Your task to perform on an android device: Open calendar and show me the second week of next month Image 0: 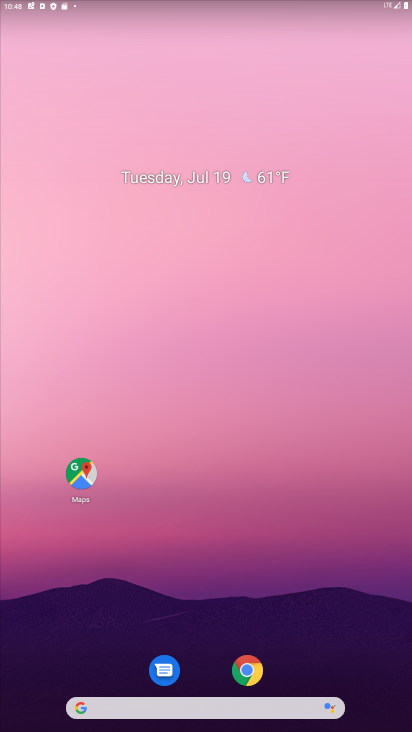
Step 0: drag from (214, 729) to (240, 3)
Your task to perform on an android device: Open calendar and show me the second week of next month Image 1: 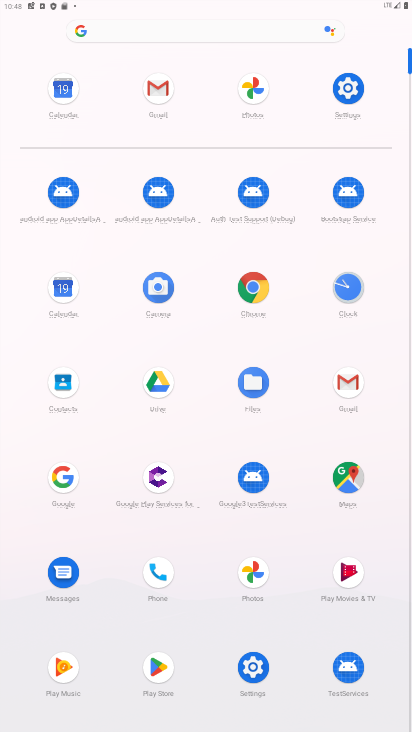
Step 1: click (70, 287)
Your task to perform on an android device: Open calendar and show me the second week of next month Image 2: 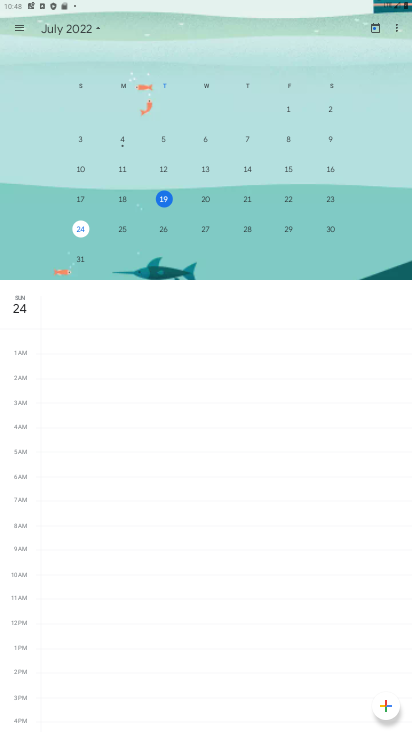
Step 2: drag from (337, 196) to (38, 113)
Your task to perform on an android device: Open calendar and show me the second week of next month Image 3: 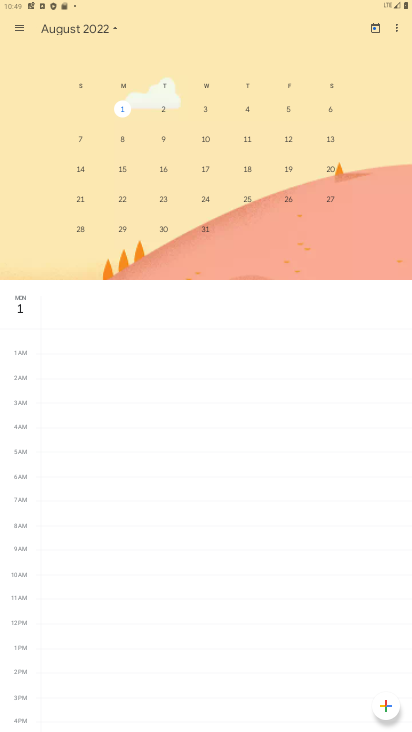
Step 3: click (83, 137)
Your task to perform on an android device: Open calendar and show me the second week of next month Image 4: 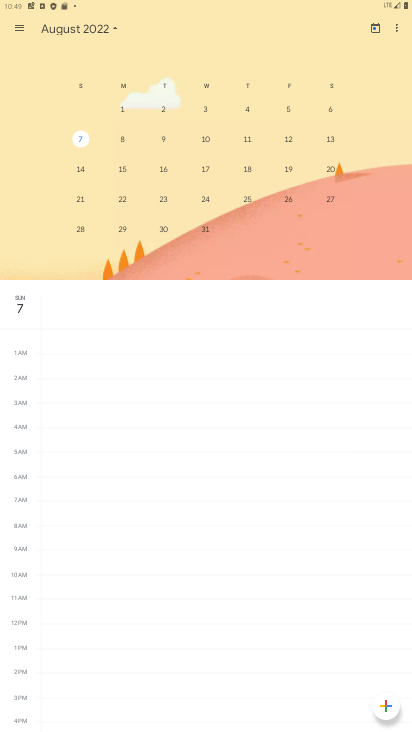
Step 4: task complete